Your task to perform on an android device: empty trash in the gmail app Image 0: 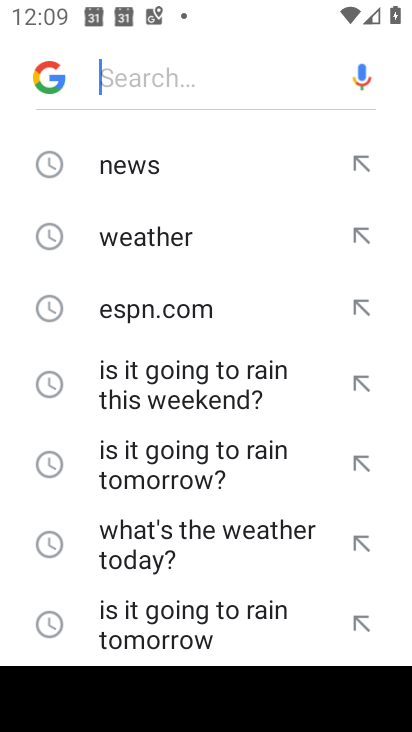
Step 0: press home button
Your task to perform on an android device: empty trash in the gmail app Image 1: 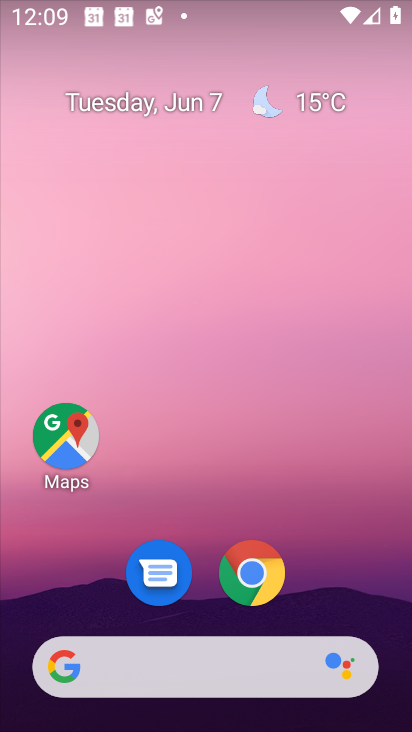
Step 1: drag from (200, 622) to (207, 86)
Your task to perform on an android device: empty trash in the gmail app Image 2: 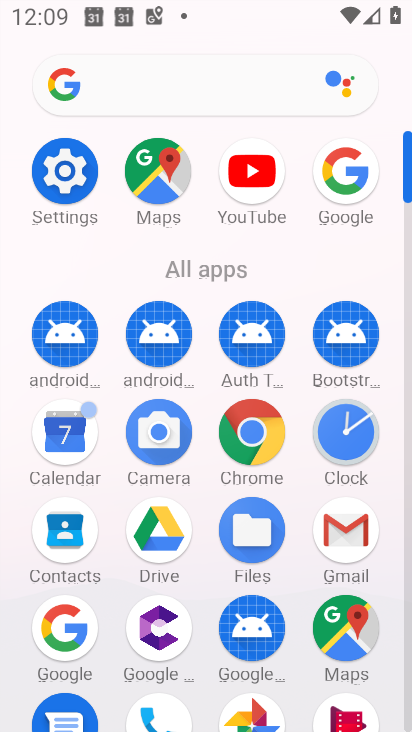
Step 2: click (333, 520)
Your task to perform on an android device: empty trash in the gmail app Image 3: 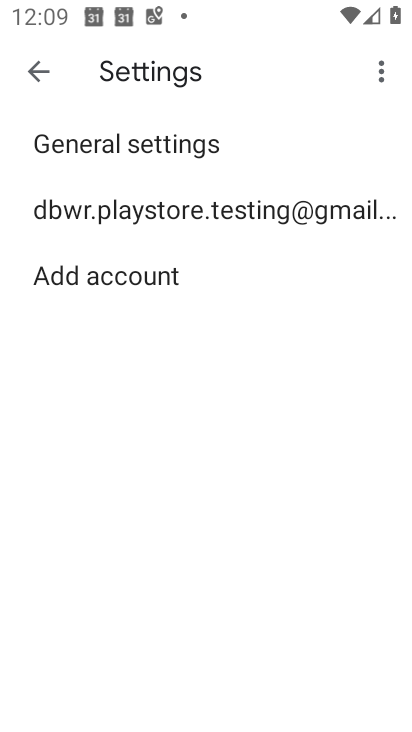
Step 3: click (31, 76)
Your task to perform on an android device: empty trash in the gmail app Image 4: 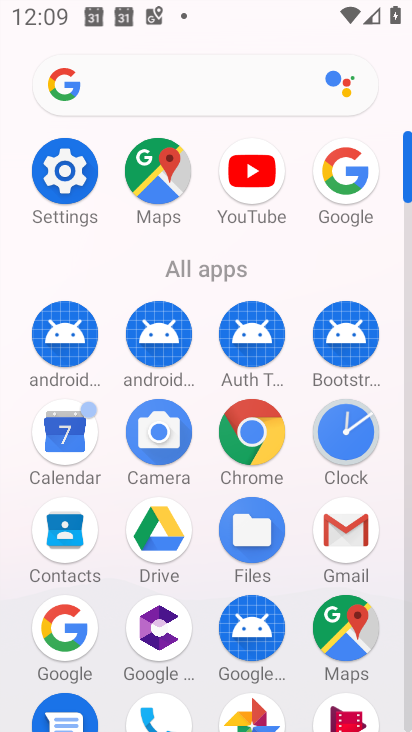
Step 4: click (351, 545)
Your task to perform on an android device: empty trash in the gmail app Image 5: 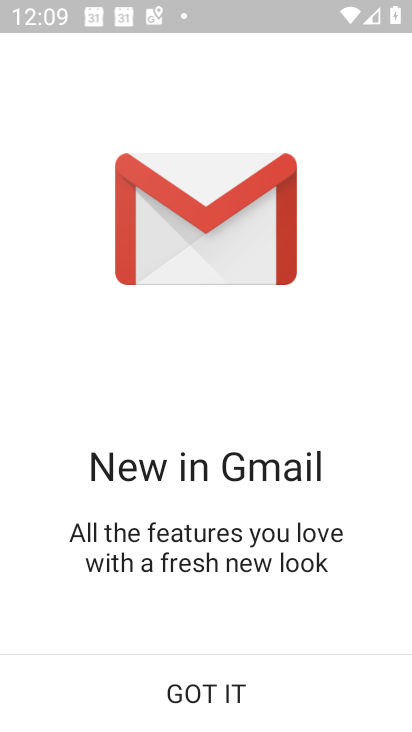
Step 5: click (181, 682)
Your task to perform on an android device: empty trash in the gmail app Image 6: 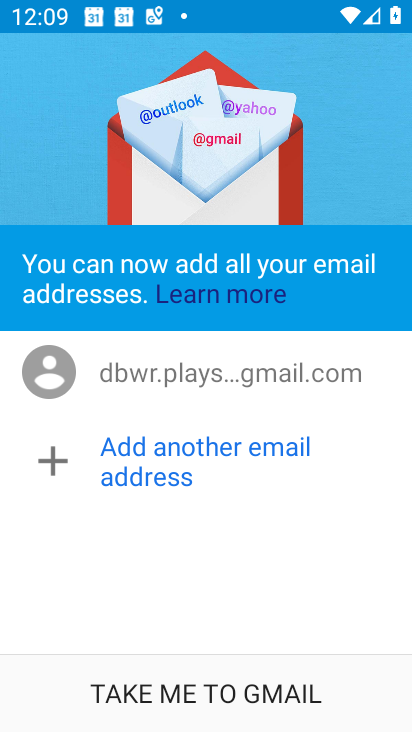
Step 6: click (181, 682)
Your task to perform on an android device: empty trash in the gmail app Image 7: 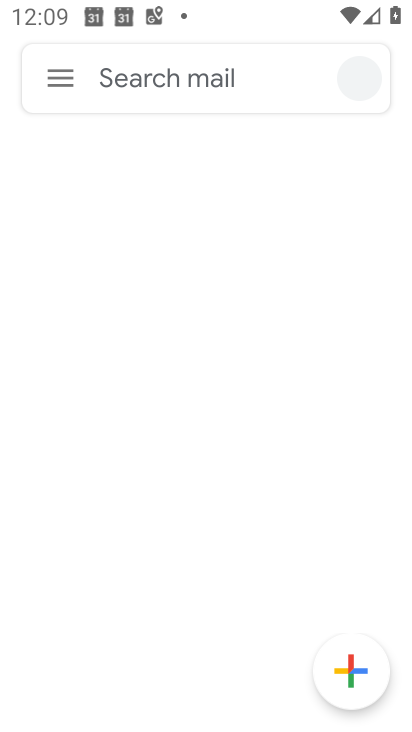
Step 7: click (63, 84)
Your task to perform on an android device: empty trash in the gmail app Image 8: 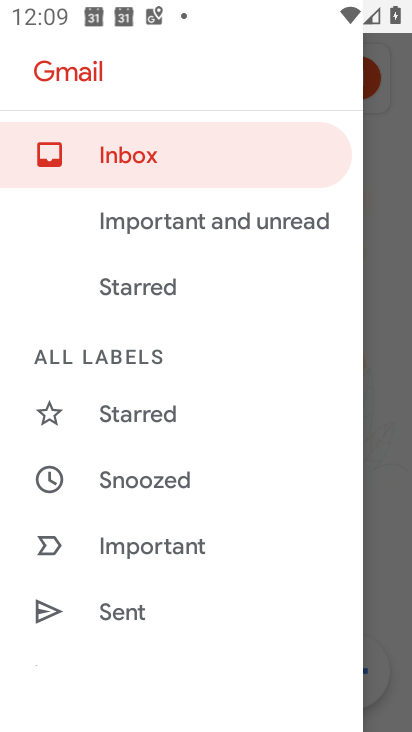
Step 8: drag from (250, 600) to (251, 274)
Your task to perform on an android device: empty trash in the gmail app Image 9: 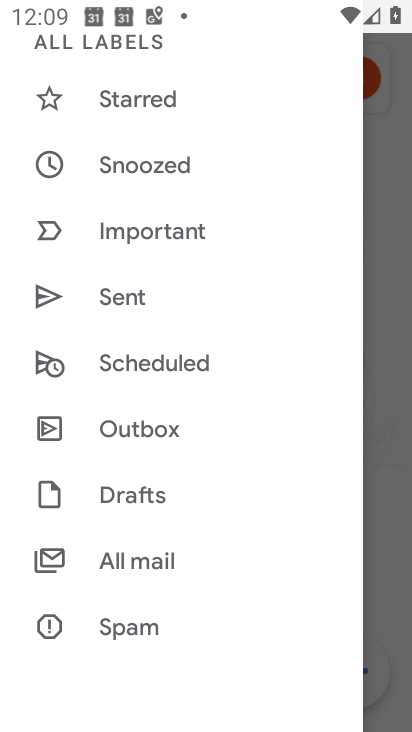
Step 9: drag from (250, 548) to (252, 247)
Your task to perform on an android device: empty trash in the gmail app Image 10: 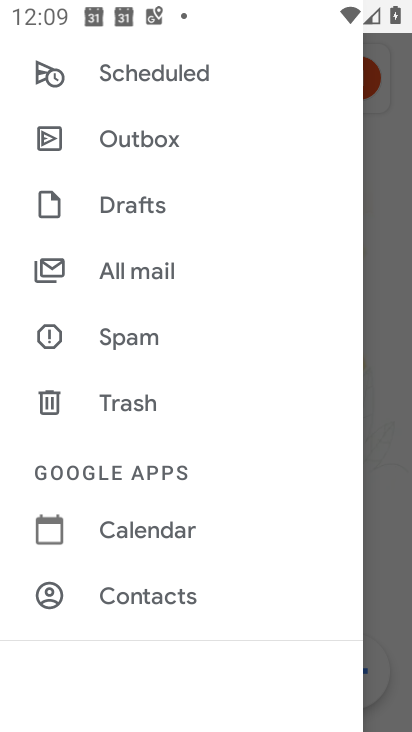
Step 10: click (127, 405)
Your task to perform on an android device: empty trash in the gmail app Image 11: 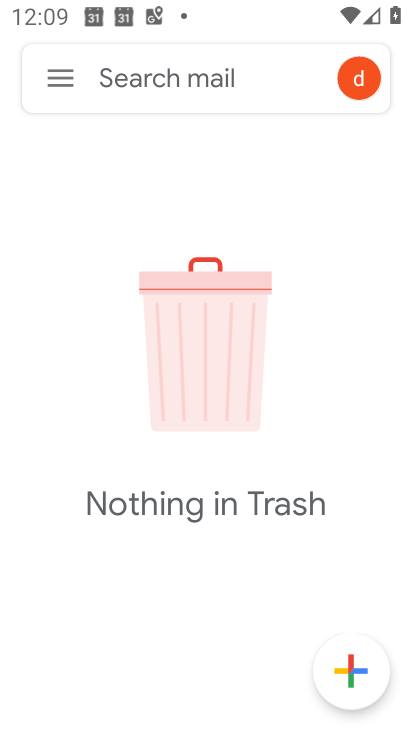
Step 11: task complete